Your task to perform on an android device: What's on my calendar today? Image 0: 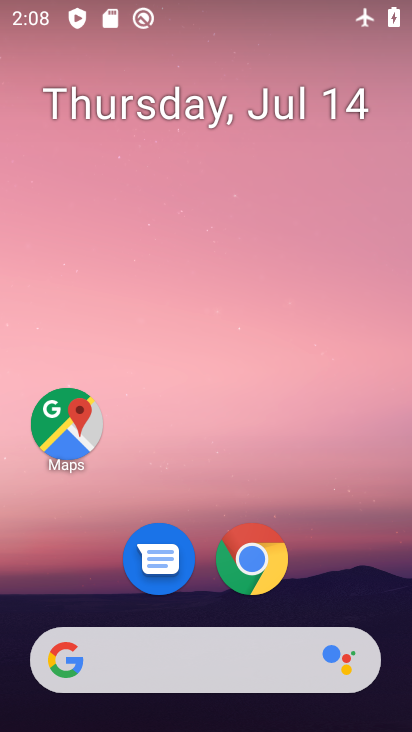
Step 0: drag from (199, 674) to (240, 106)
Your task to perform on an android device: What's on my calendar today? Image 1: 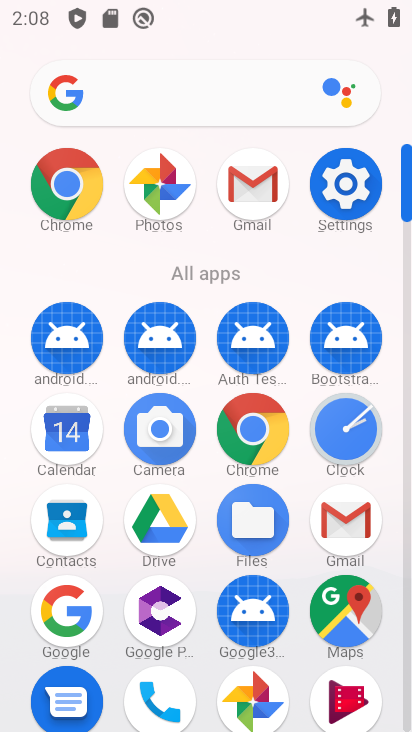
Step 1: click (57, 451)
Your task to perform on an android device: What's on my calendar today? Image 2: 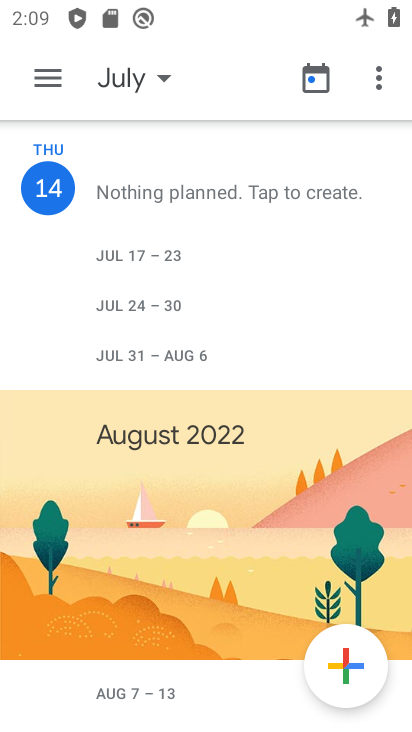
Step 2: task complete